Your task to perform on an android device: Go to Yahoo.com Image 0: 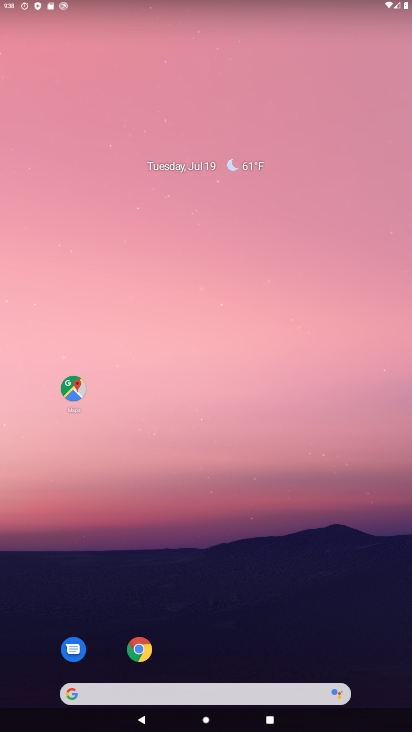
Step 0: click (147, 655)
Your task to perform on an android device: Go to Yahoo.com Image 1: 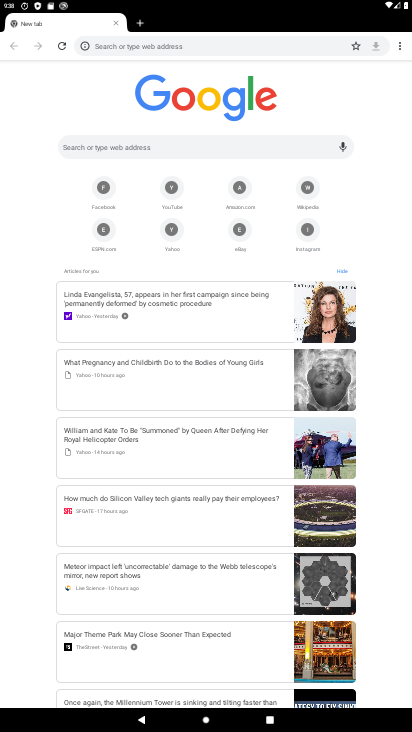
Step 1: click (169, 227)
Your task to perform on an android device: Go to Yahoo.com Image 2: 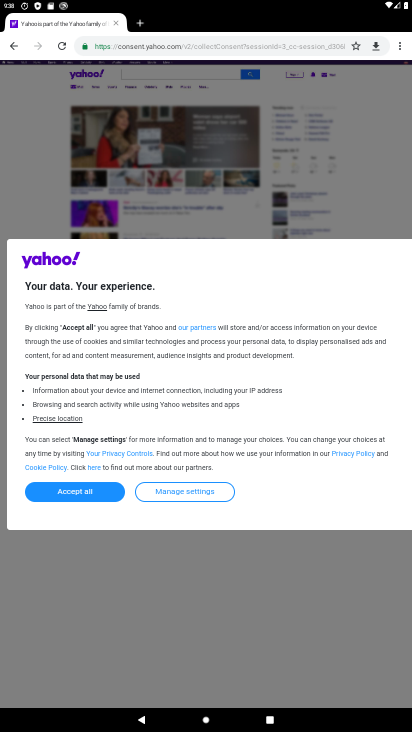
Step 2: task complete